Your task to perform on an android device: change notification settings in the gmail app Image 0: 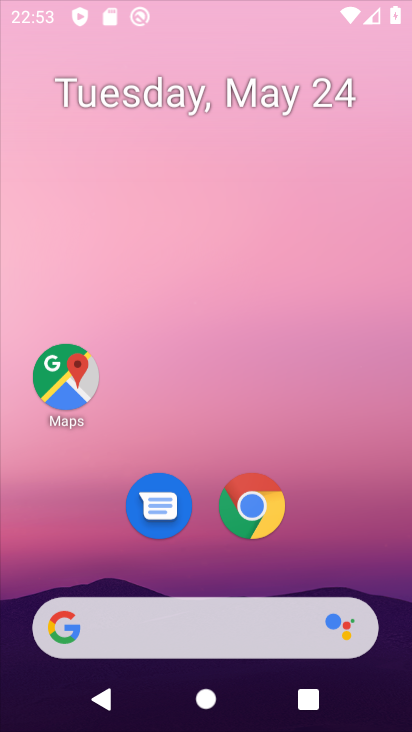
Step 0: drag from (280, 4) to (250, 33)
Your task to perform on an android device: change notification settings in the gmail app Image 1: 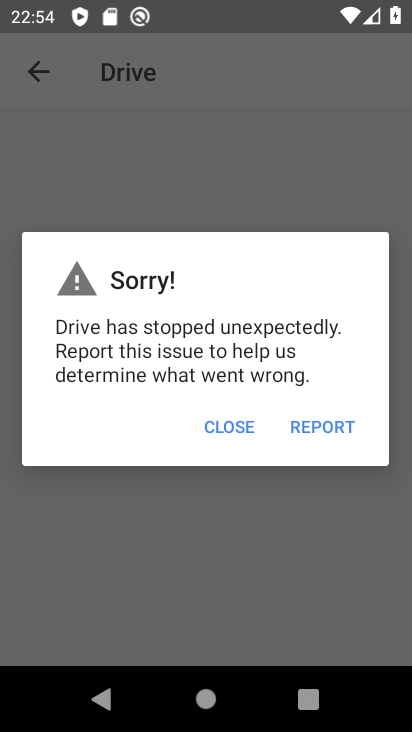
Step 1: press home button
Your task to perform on an android device: change notification settings in the gmail app Image 2: 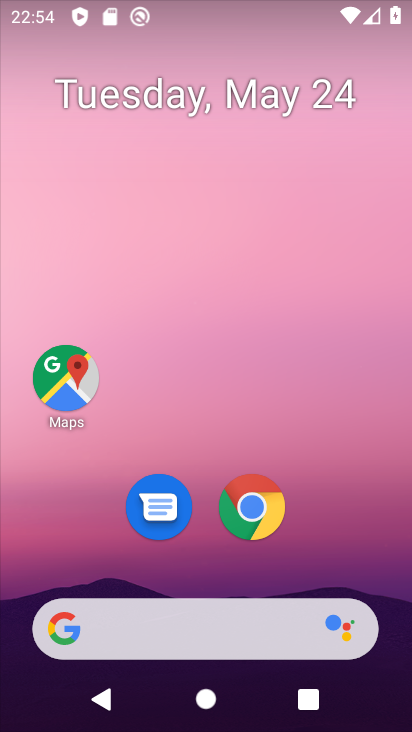
Step 2: drag from (337, 623) to (400, 690)
Your task to perform on an android device: change notification settings in the gmail app Image 3: 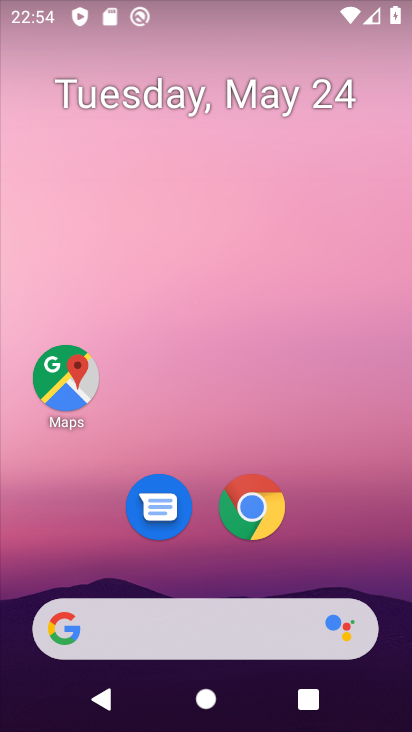
Step 3: press home button
Your task to perform on an android device: change notification settings in the gmail app Image 4: 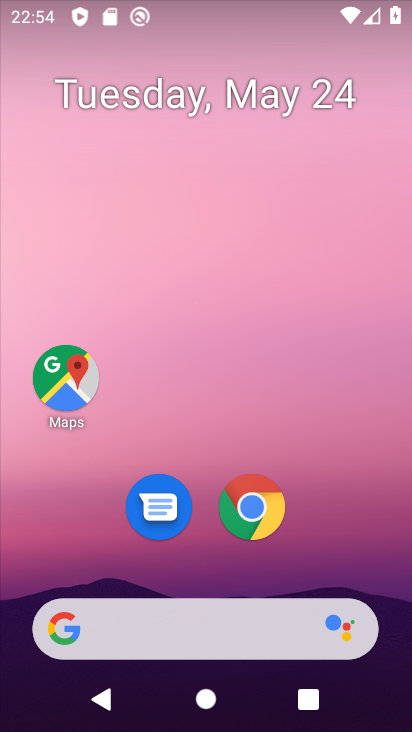
Step 4: drag from (336, 574) to (380, 143)
Your task to perform on an android device: change notification settings in the gmail app Image 5: 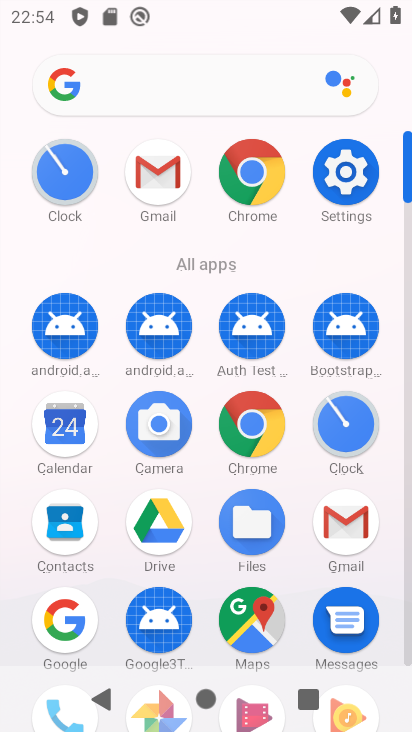
Step 5: click (355, 188)
Your task to perform on an android device: change notification settings in the gmail app Image 6: 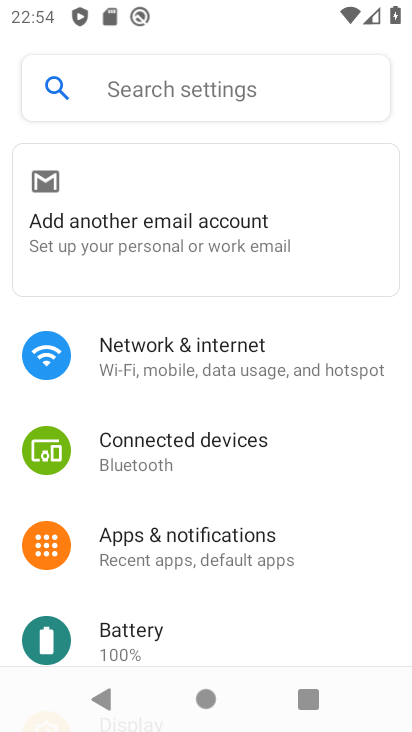
Step 6: press home button
Your task to perform on an android device: change notification settings in the gmail app Image 7: 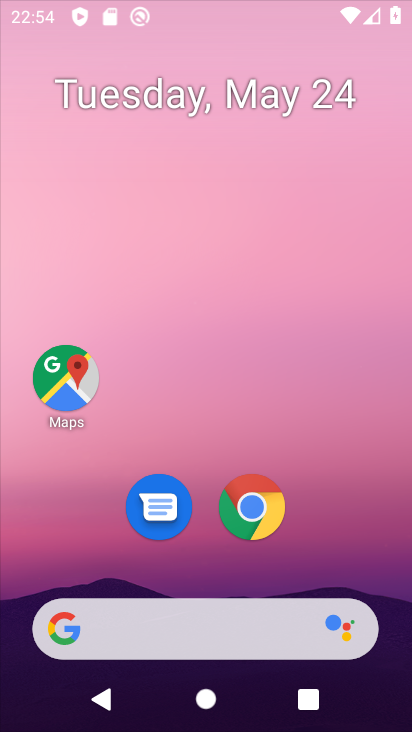
Step 7: drag from (185, 682) to (187, 65)
Your task to perform on an android device: change notification settings in the gmail app Image 8: 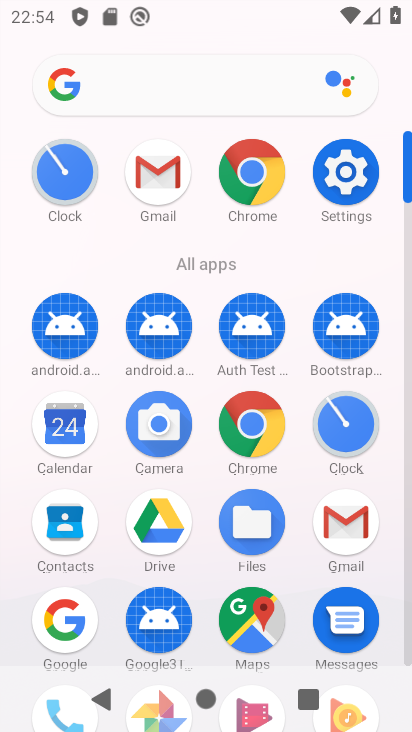
Step 8: click (377, 515)
Your task to perform on an android device: change notification settings in the gmail app Image 9: 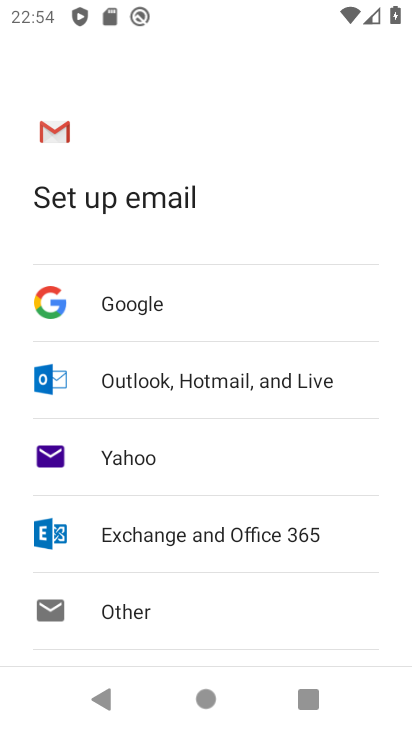
Step 9: press back button
Your task to perform on an android device: change notification settings in the gmail app Image 10: 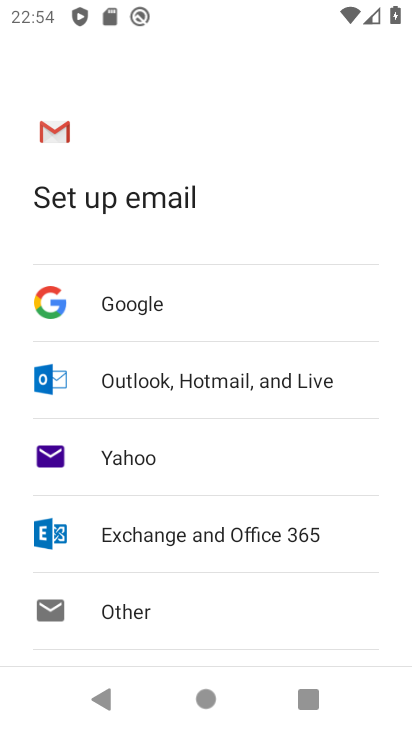
Step 10: press back button
Your task to perform on an android device: change notification settings in the gmail app Image 11: 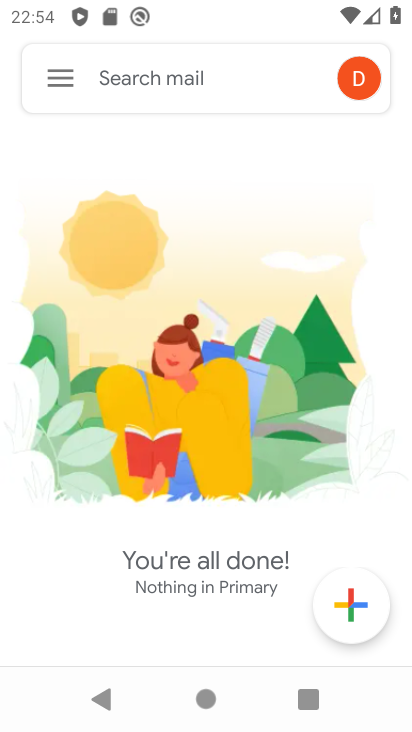
Step 11: click (60, 65)
Your task to perform on an android device: change notification settings in the gmail app Image 12: 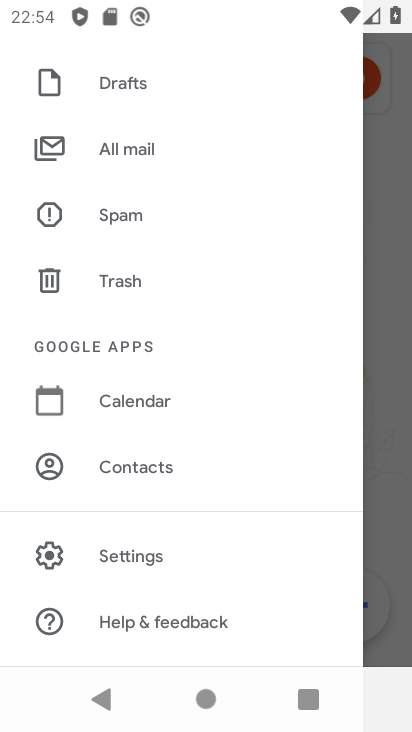
Step 12: click (144, 571)
Your task to perform on an android device: change notification settings in the gmail app Image 13: 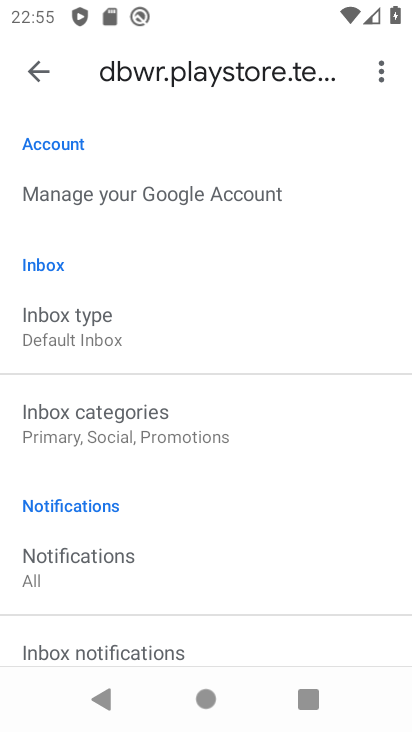
Step 13: drag from (134, 583) to (164, 262)
Your task to perform on an android device: change notification settings in the gmail app Image 14: 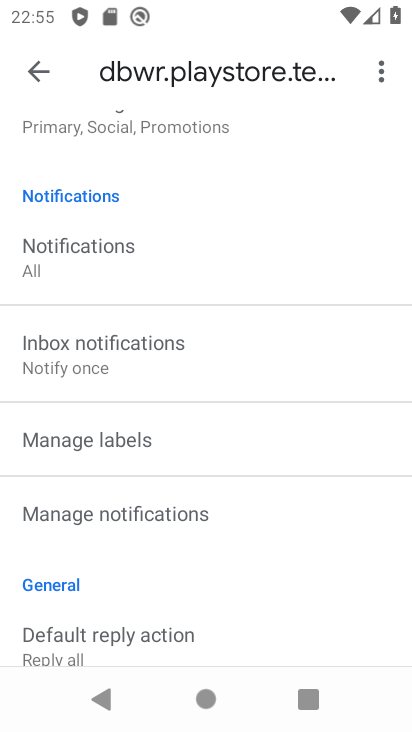
Step 14: click (90, 507)
Your task to perform on an android device: change notification settings in the gmail app Image 15: 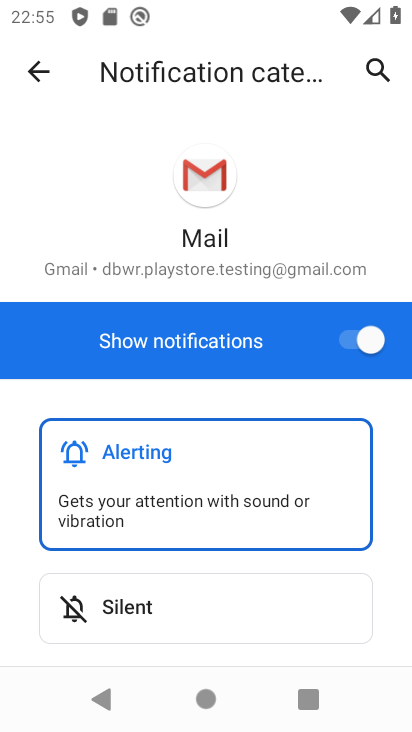
Step 15: click (352, 339)
Your task to perform on an android device: change notification settings in the gmail app Image 16: 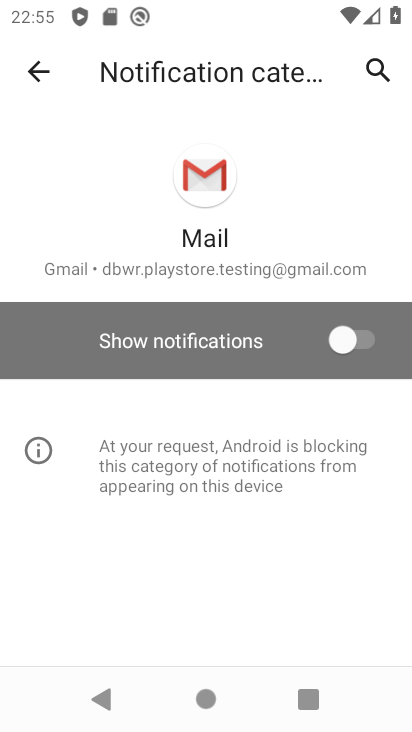
Step 16: task complete